Your task to perform on an android device: Go to display settings Image 0: 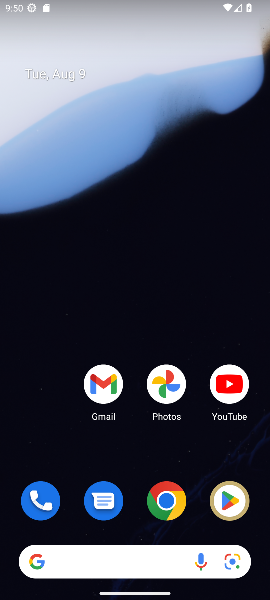
Step 0: drag from (129, 519) to (155, 156)
Your task to perform on an android device: Go to display settings Image 1: 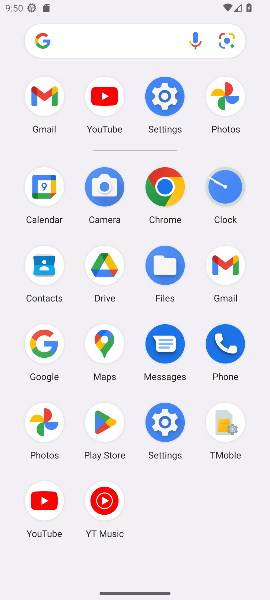
Step 1: click (167, 101)
Your task to perform on an android device: Go to display settings Image 2: 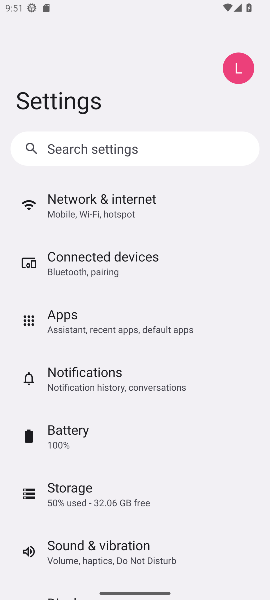
Step 2: drag from (120, 400) to (122, 316)
Your task to perform on an android device: Go to display settings Image 3: 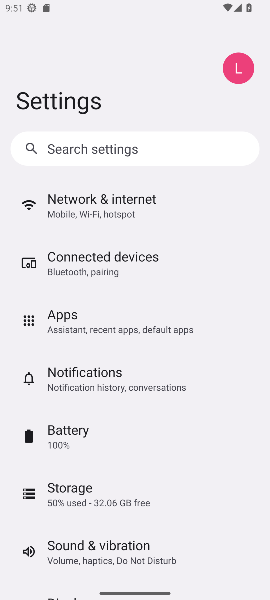
Step 3: drag from (68, 537) to (96, 374)
Your task to perform on an android device: Go to display settings Image 4: 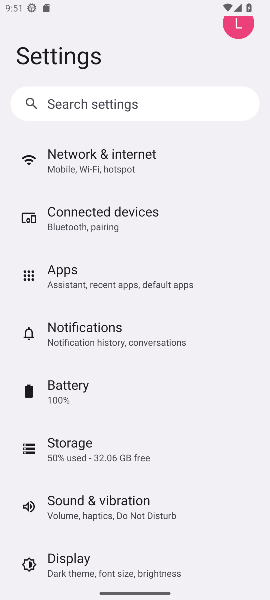
Step 4: click (48, 562)
Your task to perform on an android device: Go to display settings Image 5: 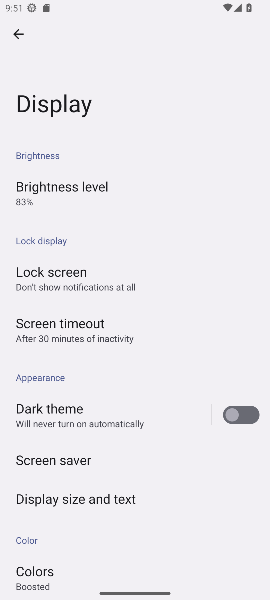
Step 5: task complete